Your task to perform on an android device: turn on priority inbox in the gmail app Image 0: 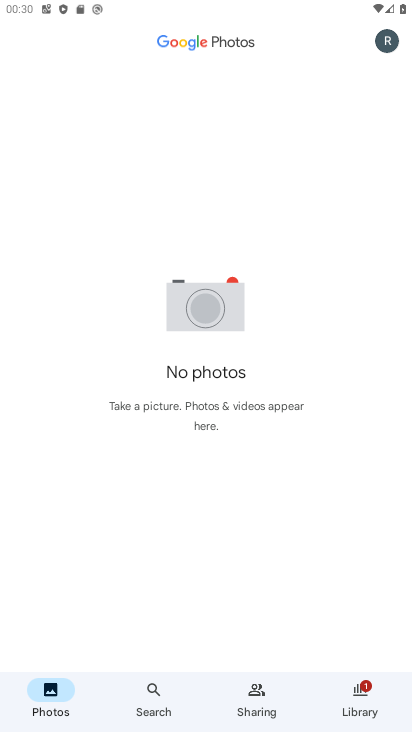
Step 0: press back button
Your task to perform on an android device: turn on priority inbox in the gmail app Image 1: 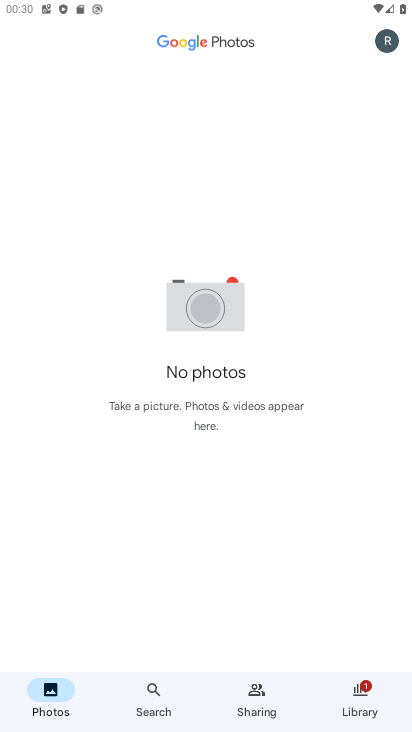
Step 1: press back button
Your task to perform on an android device: turn on priority inbox in the gmail app Image 2: 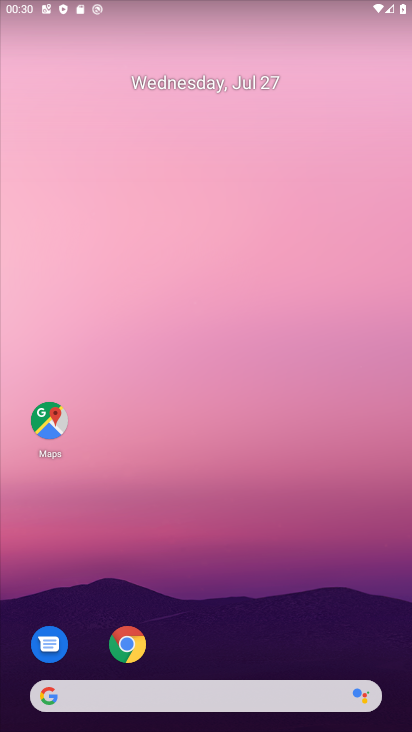
Step 2: click (159, 271)
Your task to perform on an android device: turn on priority inbox in the gmail app Image 3: 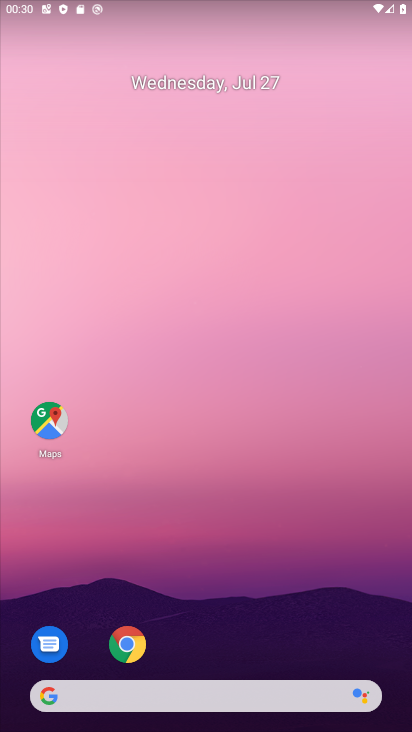
Step 3: drag from (281, 534) to (256, 262)
Your task to perform on an android device: turn on priority inbox in the gmail app Image 4: 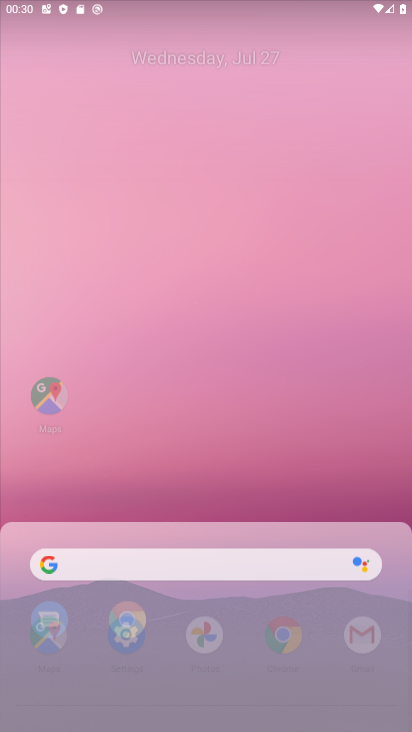
Step 4: drag from (256, 593) to (256, 325)
Your task to perform on an android device: turn on priority inbox in the gmail app Image 5: 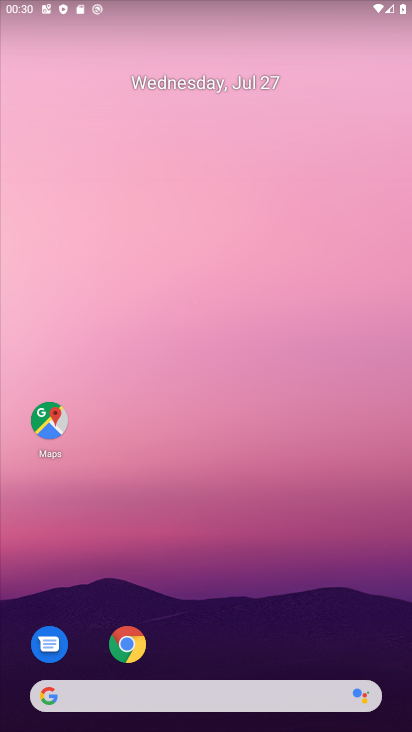
Step 5: drag from (254, 333) to (233, 235)
Your task to perform on an android device: turn on priority inbox in the gmail app Image 6: 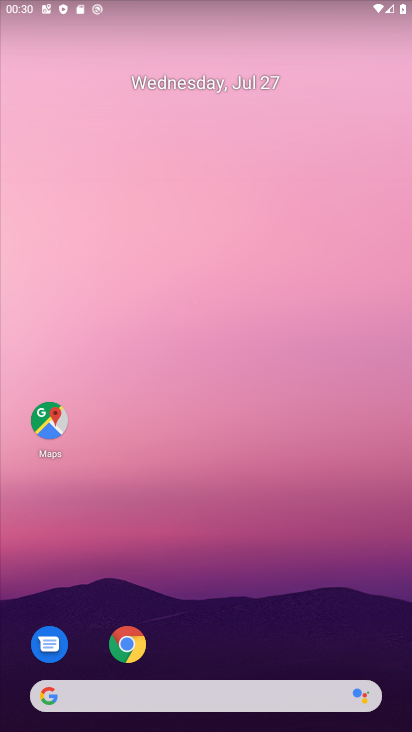
Step 6: drag from (283, 616) to (255, 190)
Your task to perform on an android device: turn on priority inbox in the gmail app Image 7: 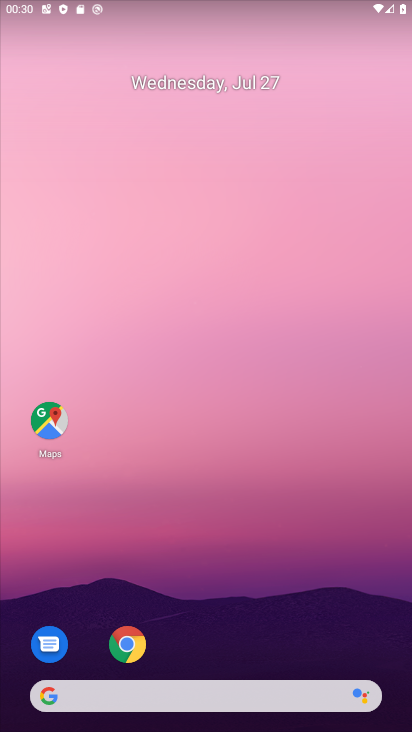
Step 7: drag from (240, 466) to (165, 109)
Your task to perform on an android device: turn on priority inbox in the gmail app Image 8: 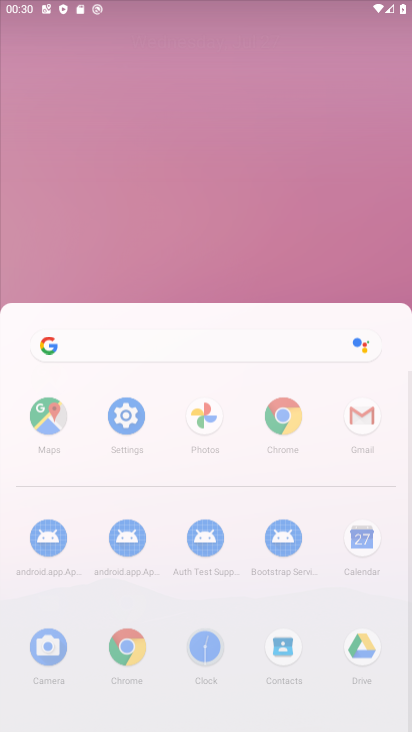
Step 8: drag from (259, 513) to (221, 287)
Your task to perform on an android device: turn on priority inbox in the gmail app Image 9: 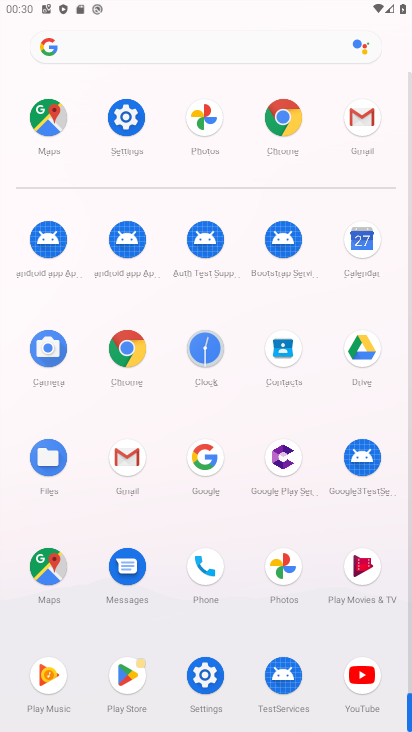
Step 9: click (127, 454)
Your task to perform on an android device: turn on priority inbox in the gmail app Image 10: 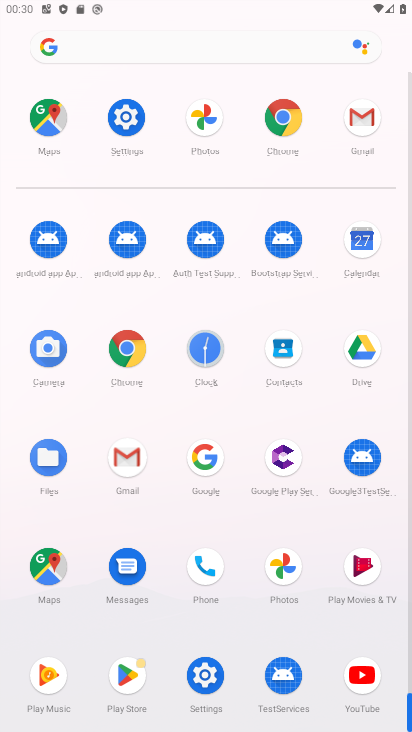
Step 10: click (131, 456)
Your task to perform on an android device: turn on priority inbox in the gmail app Image 11: 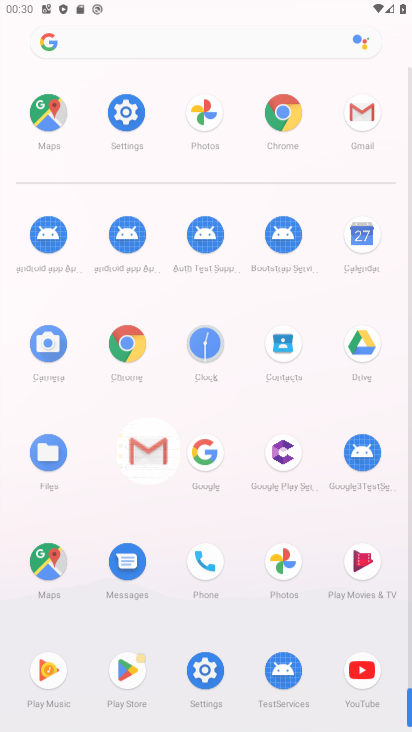
Step 11: click (133, 457)
Your task to perform on an android device: turn on priority inbox in the gmail app Image 12: 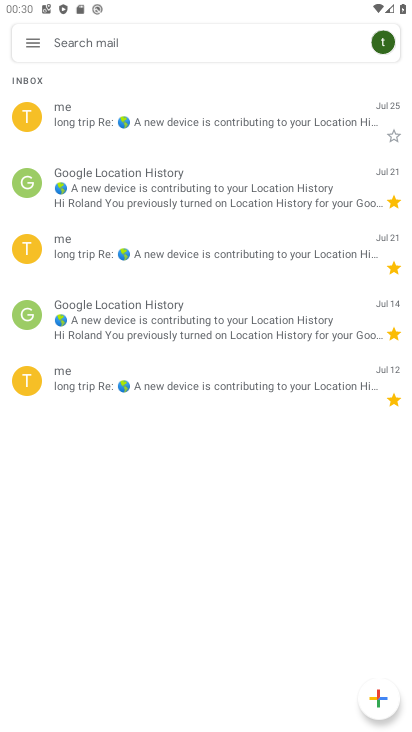
Step 12: click (133, 458)
Your task to perform on an android device: turn on priority inbox in the gmail app Image 13: 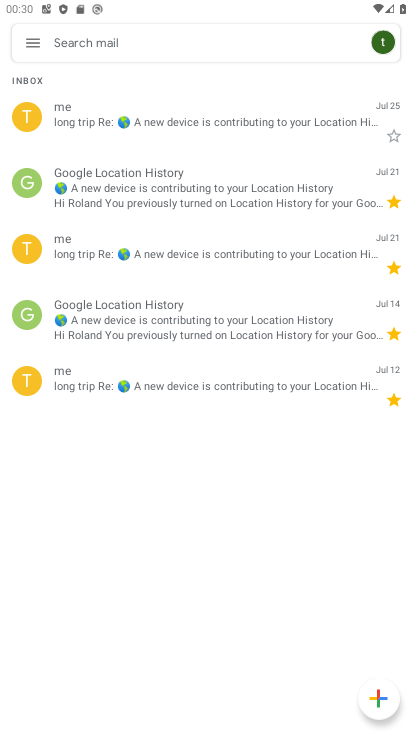
Step 13: click (14, 31)
Your task to perform on an android device: turn on priority inbox in the gmail app Image 14: 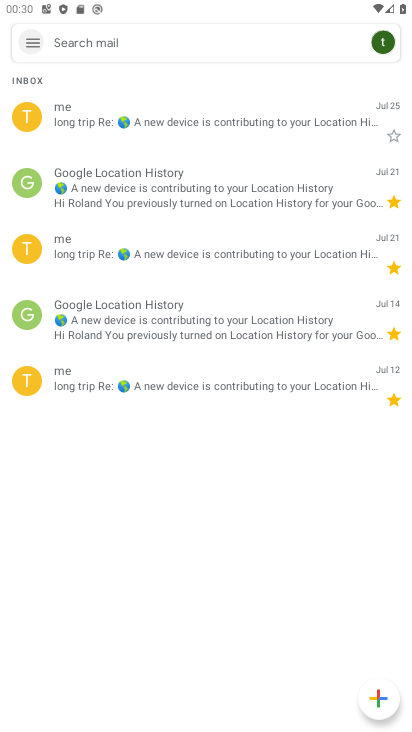
Step 14: click (31, 47)
Your task to perform on an android device: turn on priority inbox in the gmail app Image 15: 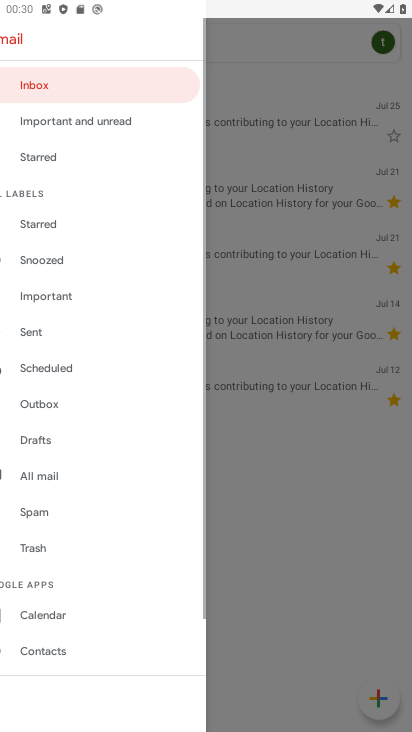
Step 15: click (37, 50)
Your task to perform on an android device: turn on priority inbox in the gmail app Image 16: 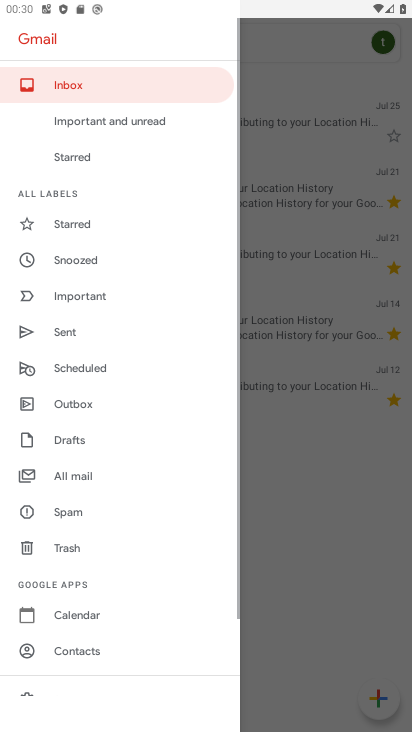
Step 16: click (38, 50)
Your task to perform on an android device: turn on priority inbox in the gmail app Image 17: 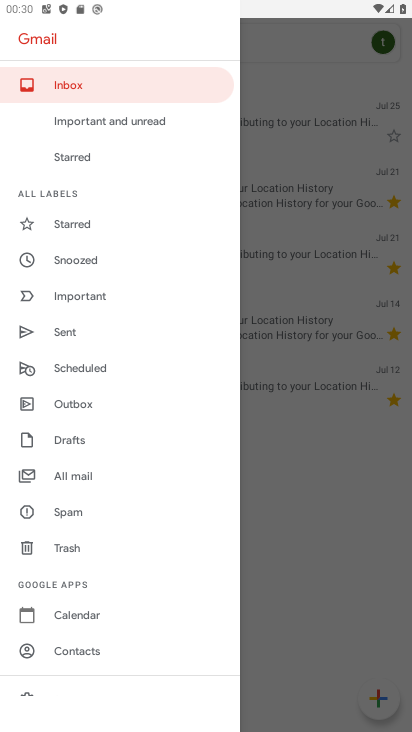
Step 17: drag from (89, 630) to (95, 122)
Your task to perform on an android device: turn on priority inbox in the gmail app Image 18: 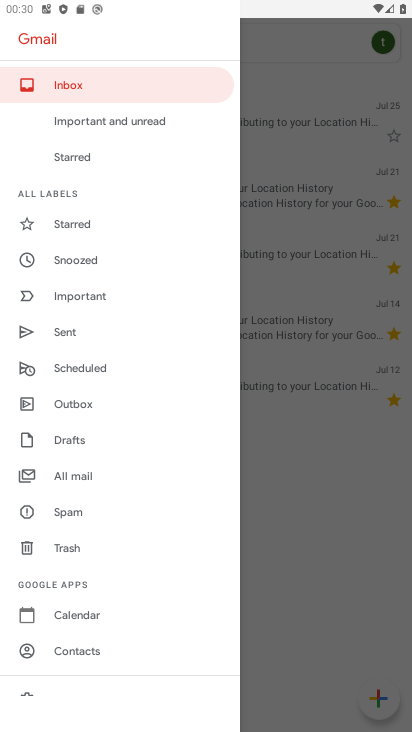
Step 18: drag from (113, 391) to (77, 261)
Your task to perform on an android device: turn on priority inbox in the gmail app Image 19: 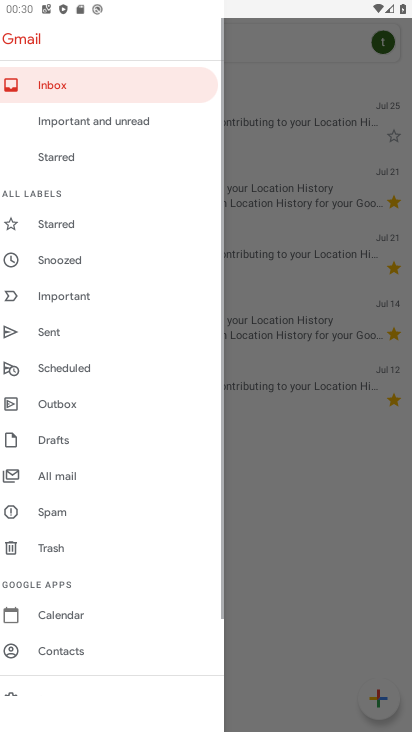
Step 19: drag from (56, 449) to (61, 333)
Your task to perform on an android device: turn on priority inbox in the gmail app Image 20: 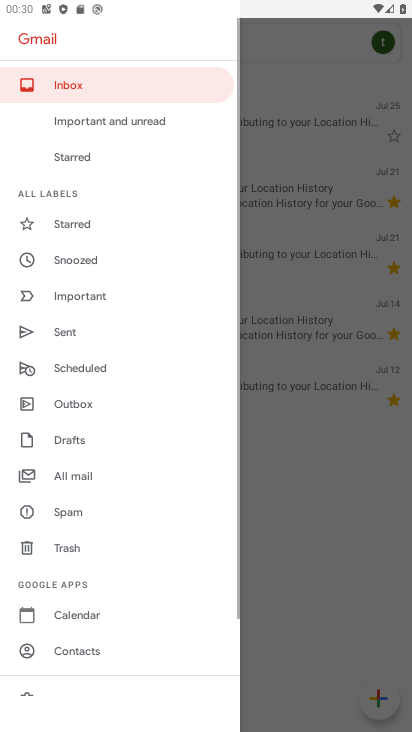
Step 20: drag from (17, 691) to (17, 282)
Your task to perform on an android device: turn on priority inbox in the gmail app Image 21: 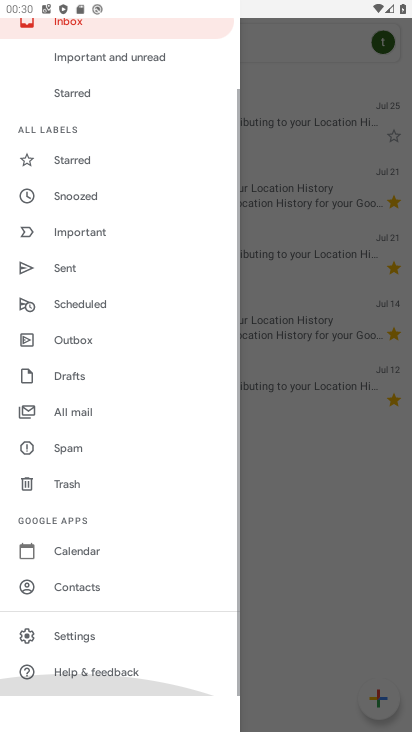
Step 21: drag from (57, 522) to (85, 189)
Your task to perform on an android device: turn on priority inbox in the gmail app Image 22: 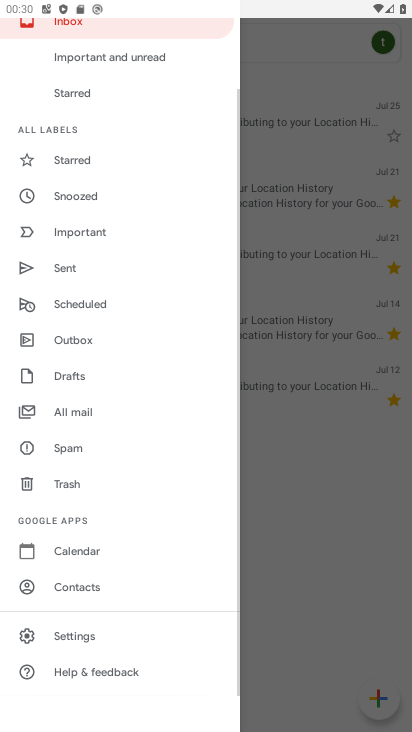
Step 22: click (78, 637)
Your task to perform on an android device: turn on priority inbox in the gmail app Image 23: 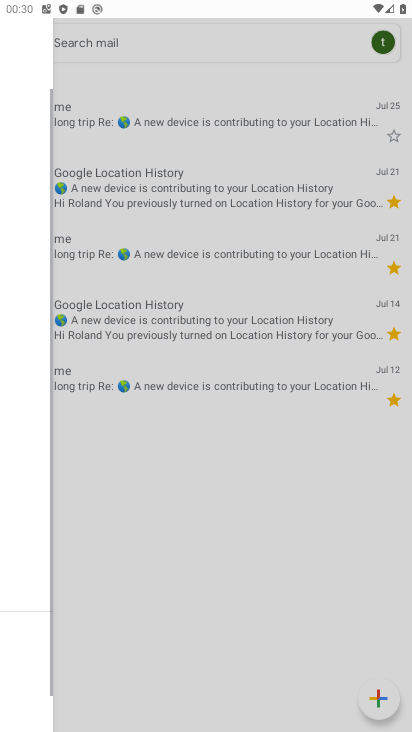
Step 23: click (78, 637)
Your task to perform on an android device: turn on priority inbox in the gmail app Image 24: 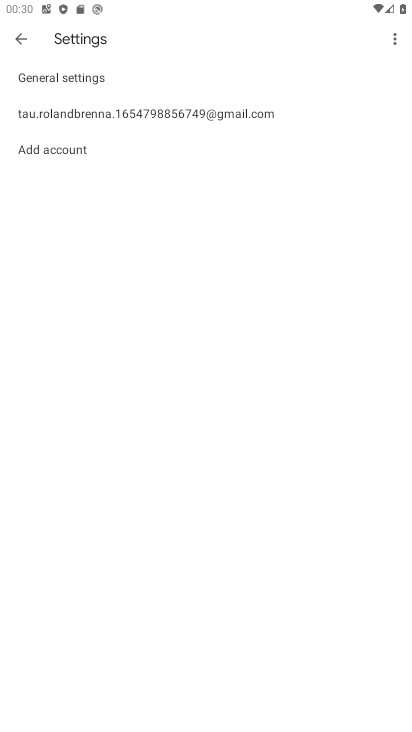
Step 24: click (42, 107)
Your task to perform on an android device: turn on priority inbox in the gmail app Image 25: 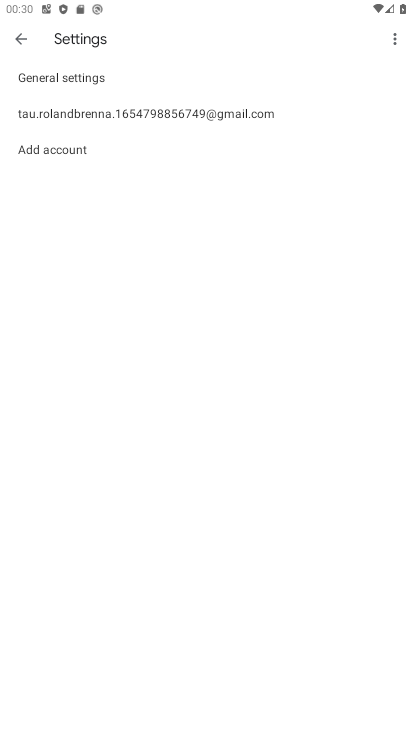
Step 25: click (54, 105)
Your task to perform on an android device: turn on priority inbox in the gmail app Image 26: 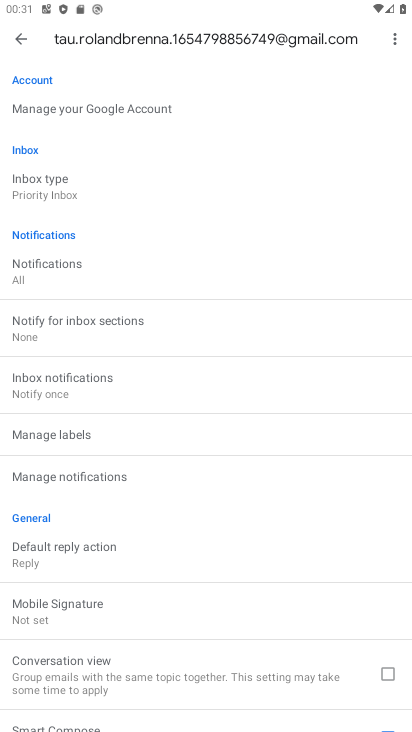
Step 26: click (21, 35)
Your task to perform on an android device: turn on priority inbox in the gmail app Image 27: 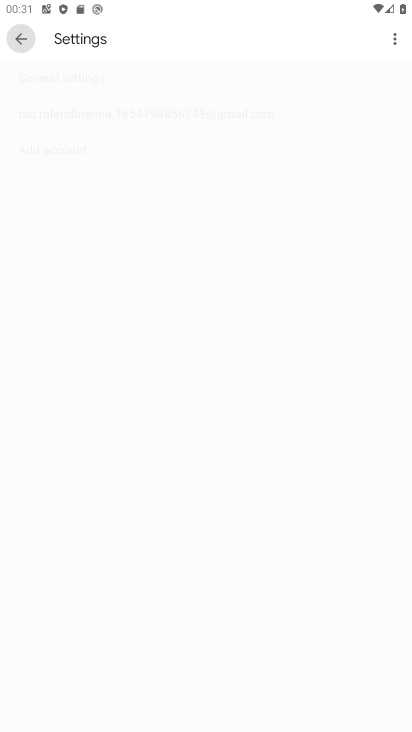
Step 27: click (21, 35)
Your task to perform on an android device: turn on priority inbox in the gmail app Image 28: 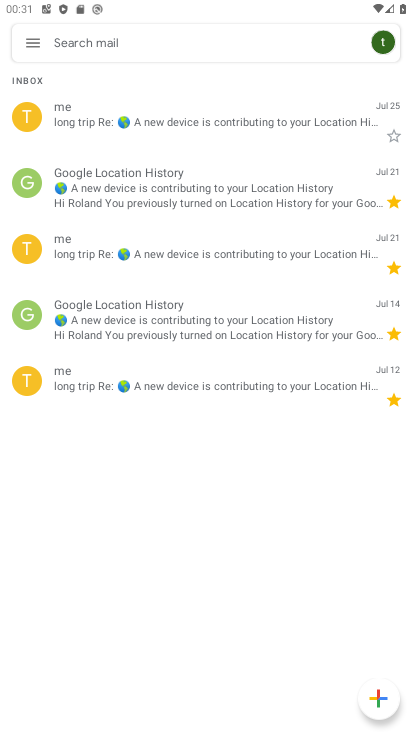
Step 28: click (27, 44)
Your task to perform on an android device: turn on priority inbox in the gmail app Image 29: 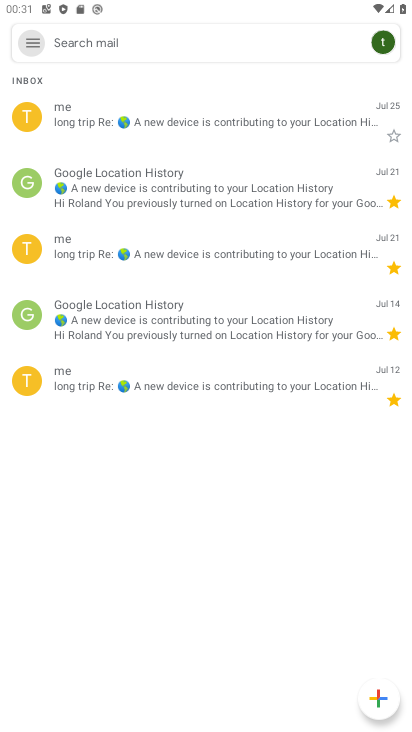
Step 29: click (26, 44)
Your task to perform on an android device: turn on priority inbox in the gmail app Image 30: 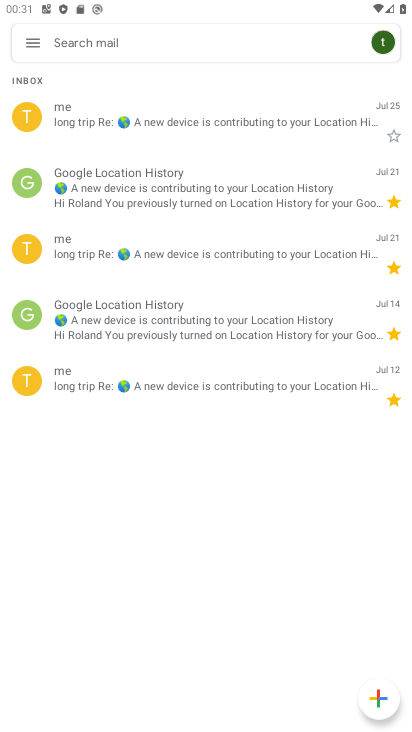
Step 30: drag from (32, 39) to (71, 353)
Your task to perform on an android device: turn on priority inbox in the gmail app Image 31: 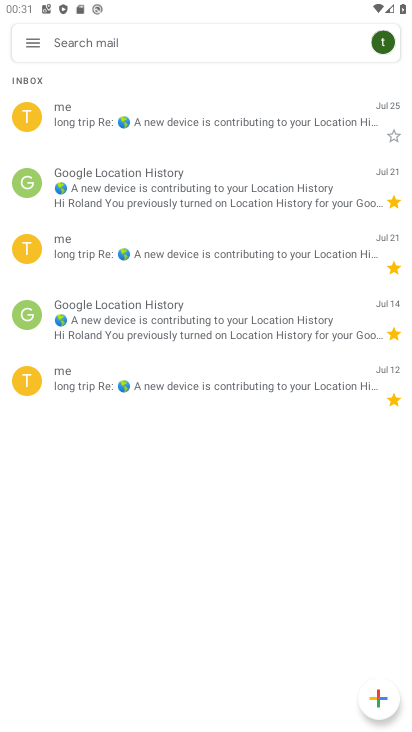
Step 31: click (52, 51)
Your task to perform on an android device: turn on priority inbox in the gmail app Image 32: 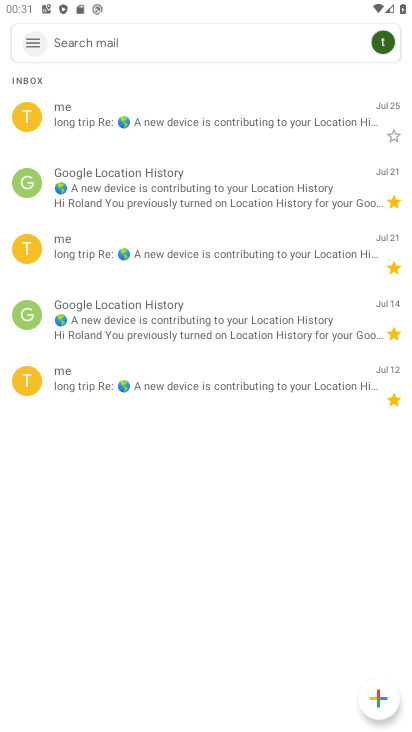
Step 32: click (39, 41)
Your task to perform on an android device: turn on priority inbox in the gmail app Image 33: 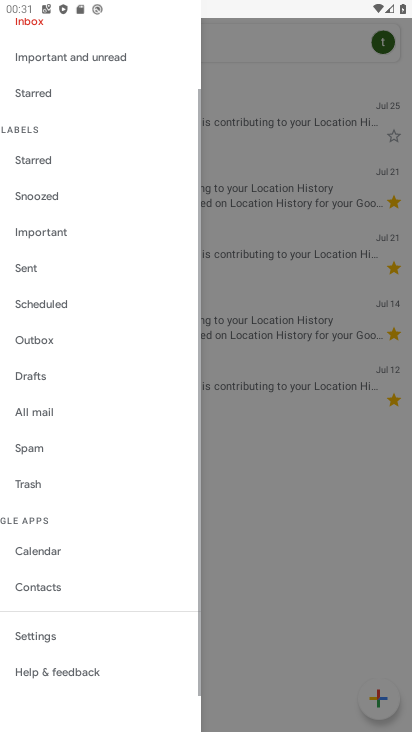
Step 33: drag from (38, 42) to (78, 639)
Your task to perform on an android device: turn on priority inbox in the gmail app Image 34: 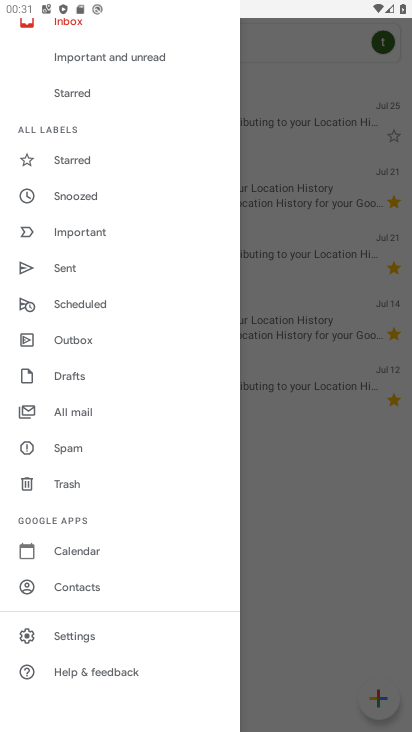
Step 34: click (76, 632)
Your task to perform on an android device: turn on priority inbox in the gmail app Image 35: 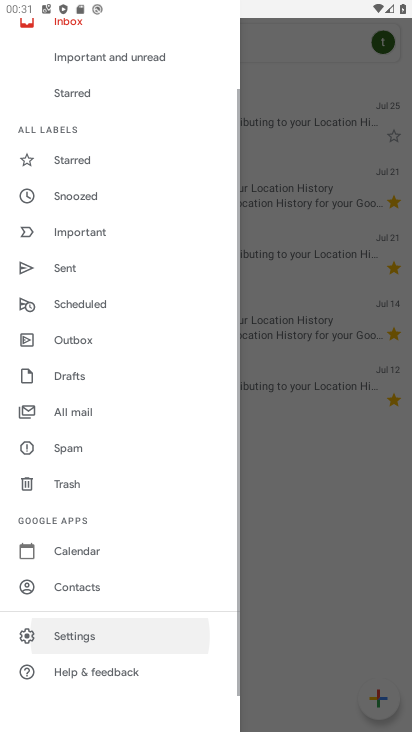
Step 35: click (76, 632)
Your task to perform on an android device: turn on priority inbox in the gmail app Image 36: 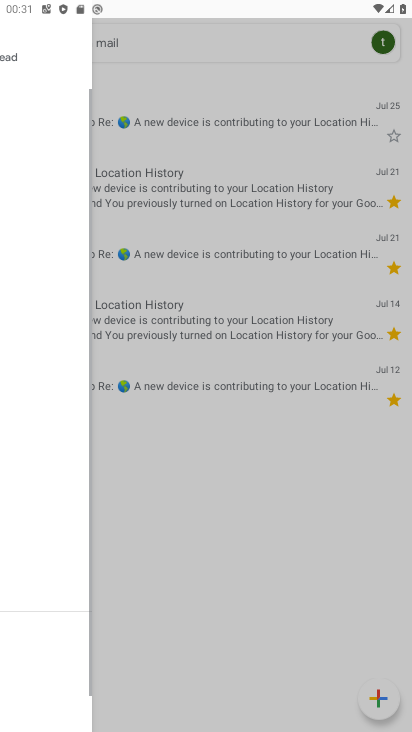
Step 36: click (72, 634)
Your task to perform on an android device: turn on priority inbox in the gmail app Image 37: 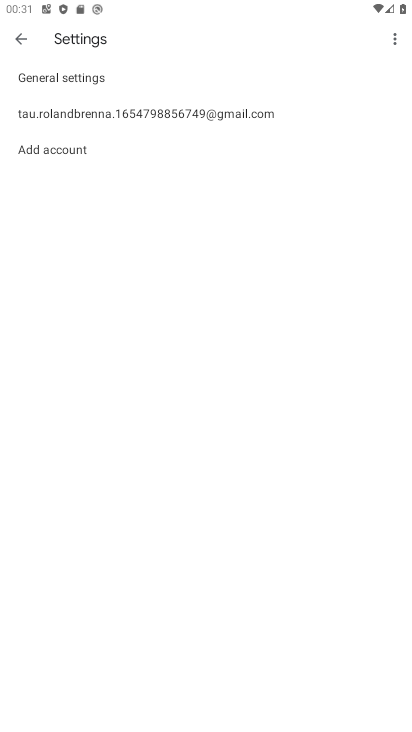
Step 37: click (78, 79)
Your task to perform on an android device: turn on priority inbox in the gmail app Image 38: 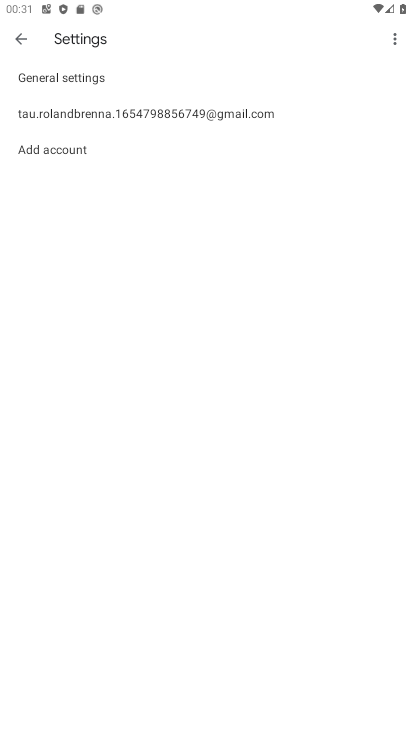
Step 38: click (97, 122)
Your task to perform on an android device: turn on priority inbox in the gmail app Image 39: 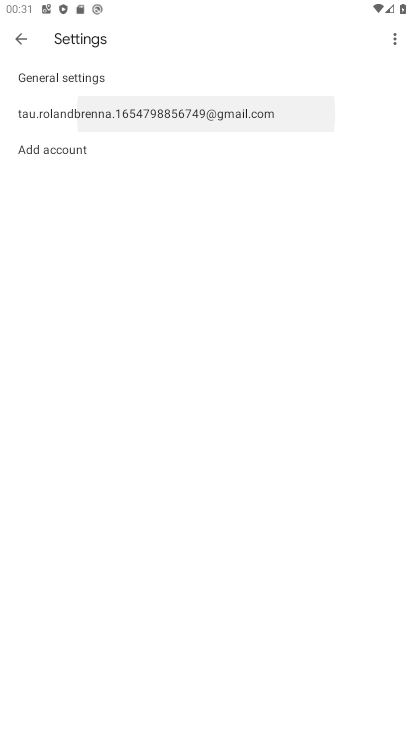
Step 39: click (106, 116)
Your task to perform on an android device: turn on priority inbox in the gmail app Image 40: 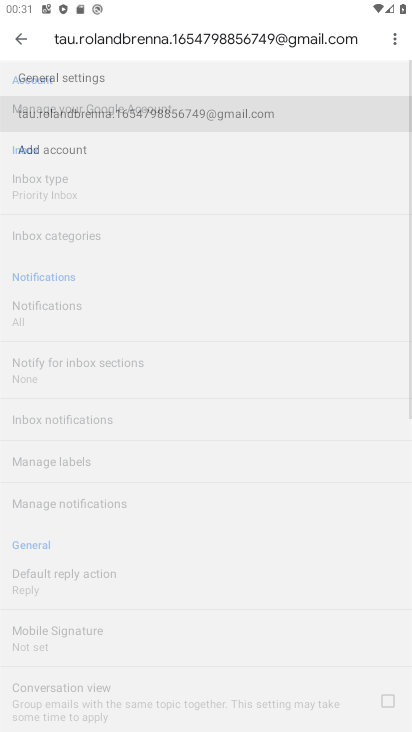
Step 40: click (119, 108)
Your task to perform on an android device: turn on priority inbox in the gmail app Image 41: 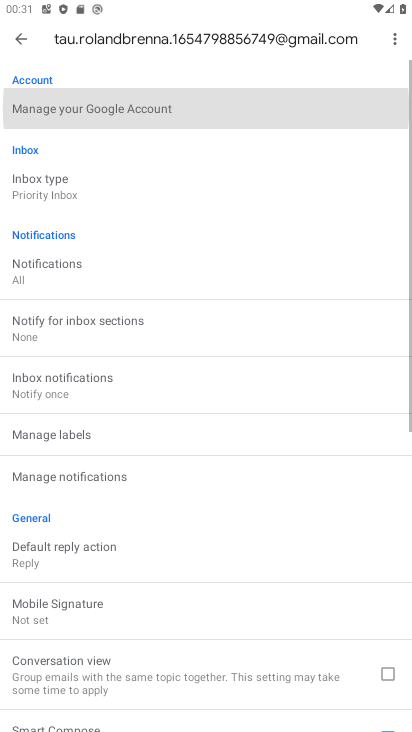
Step 41: click (127, 109)
Your task to perform on an android device: turn on priority inbox in the gmail app Image 42: 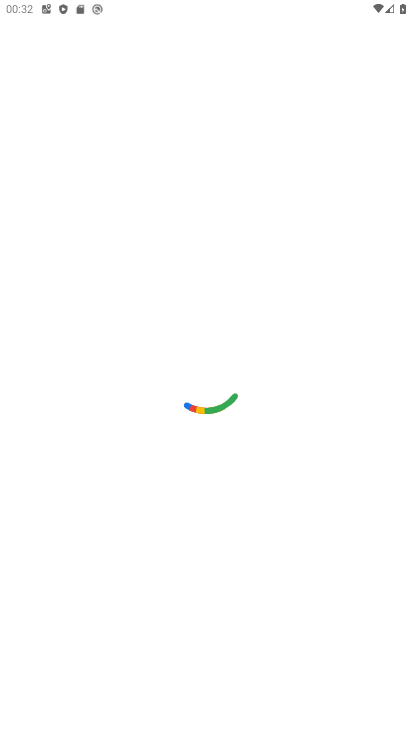
Step 42: task complete